Your task to perform on an android device: turn off airplane mode Image 0: 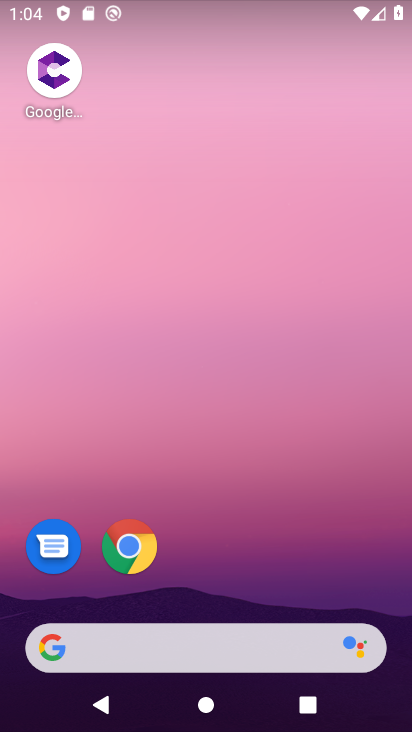
Step 0: drag from (251, 621) to (279, 86)
Your task to perform on an android device: turn off airplane mode Image 1: 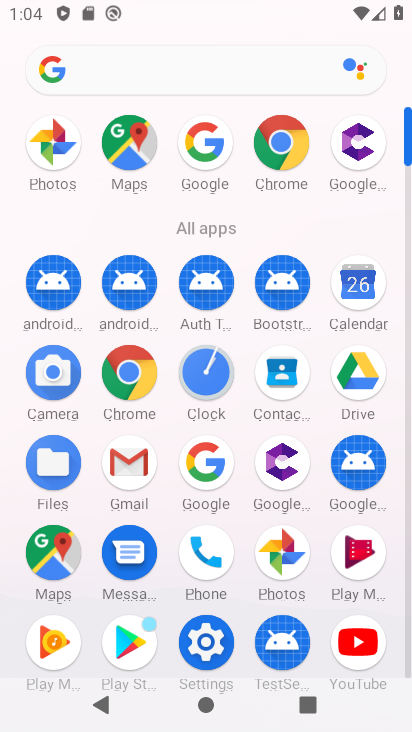
Step 1: click (217, 649)
Your task to perform on an android device: turn off airplane mode Image 2: 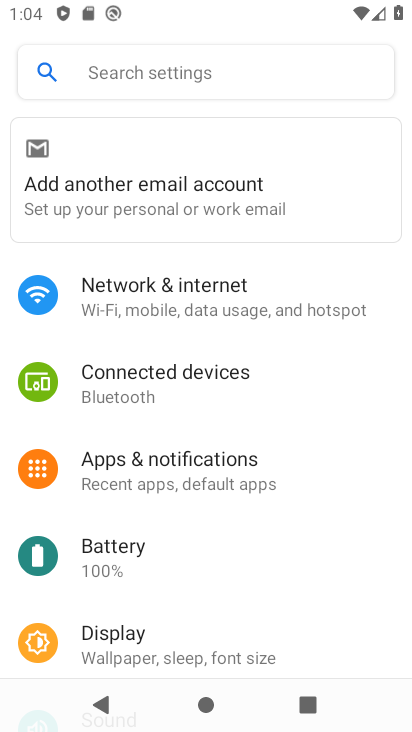
Step 2: click (169, 286)
Your task to perform on an android device: turn off airplane mode Image 3: 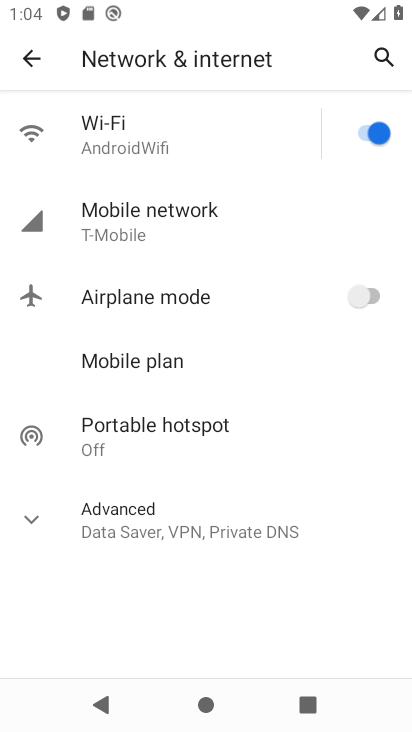
Step 3: task complete